Your task to perform on an android device: Clear all items from cart on target. Image 0: 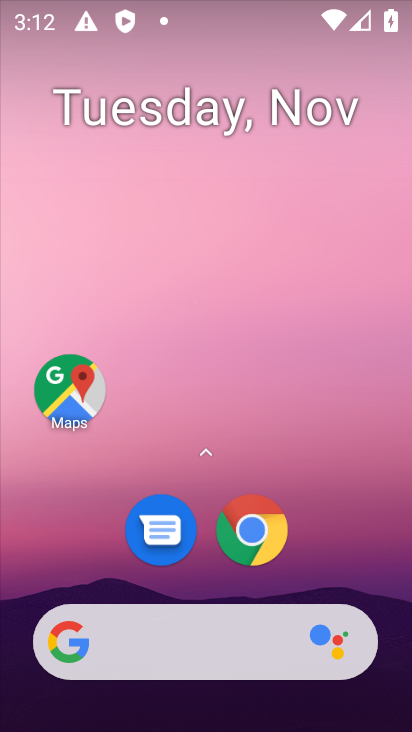
Step 0: drag from (285, 687) to (300, 77)
Your task to perform on an android device: Clear all items from cart on target. Image 1: 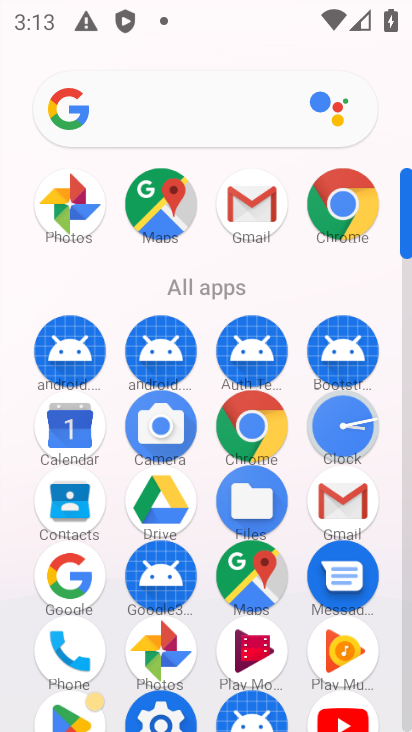
Step 1: click (256, 416)
Your task to perform on an android device: Clear all items from cart on target. Image 2: 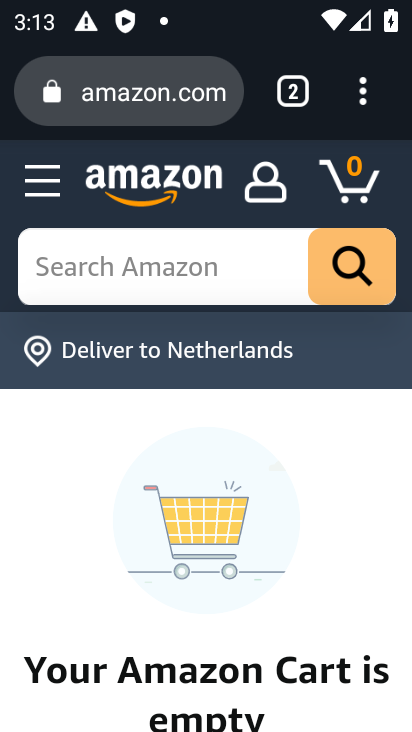
Step 2: click (163, 95)
Your task to perform on an android device: Clear all items from cart on target. Image 3: 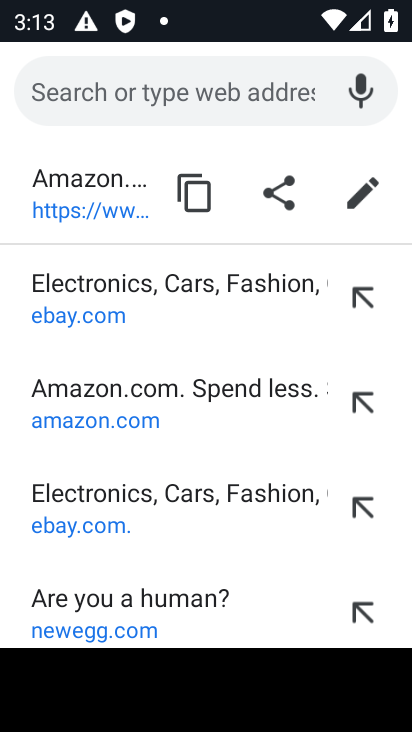
Step 3: type " target"
Your task to perform on an android device: Clear all items from cart on target. Image 4: 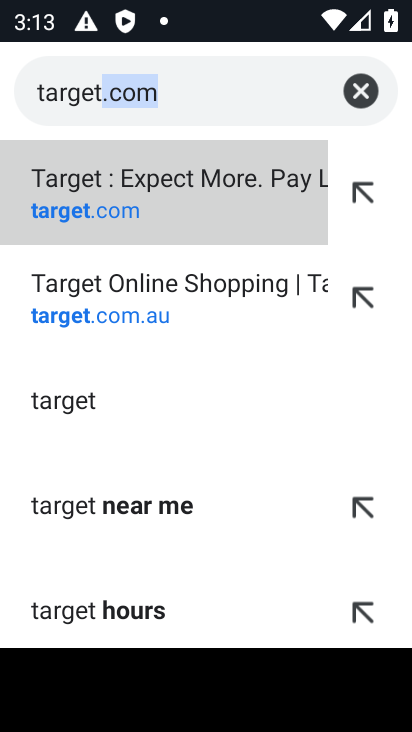
Step 4: click (110, 213)
Your task to perform on an android device: Clear all items from cart on target. Image 5: 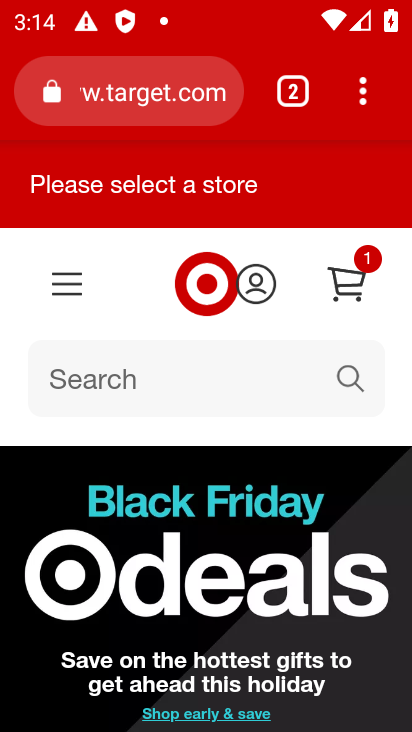
Step 5: click (349, 270)
Your task to perform on an android device: Clear all items from cart on target. Image 6: 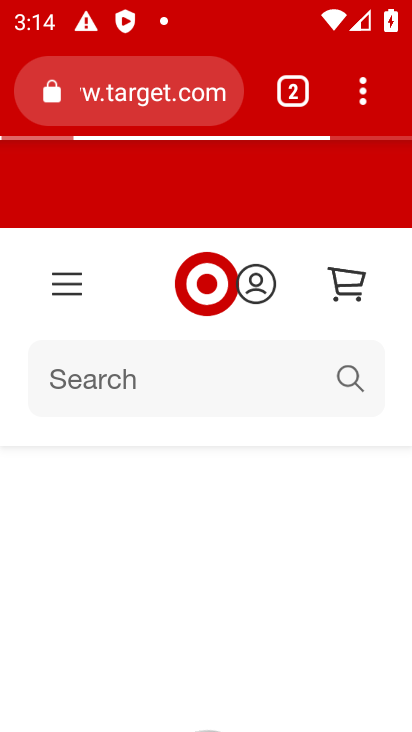
Step 6: drag from (228, 554) to (186, 161)
Your task to perform on an android device: Clear all items from cart on target. Image 7: 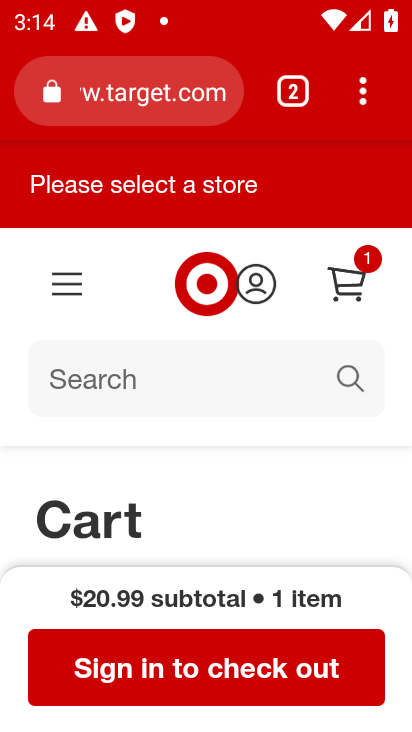
Step 7: click (356, 276)
Your task to perform on an android device: Clear all items from cart on target. Image 8: 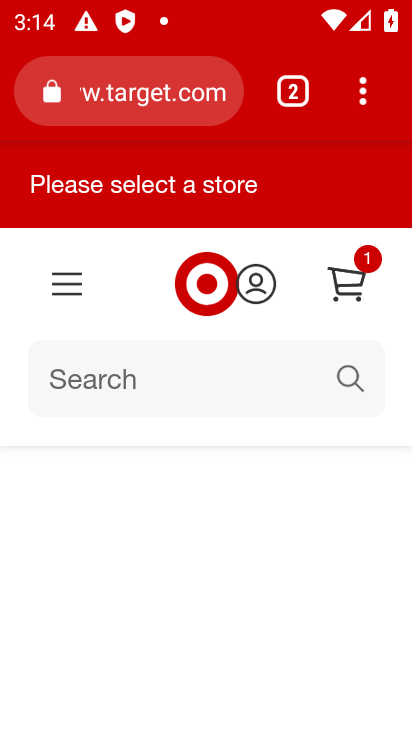
Step 8: drag from (305, 542) to (328, 218)
Your task to perform on an android device: Clear all items from cart on target. Image 9: 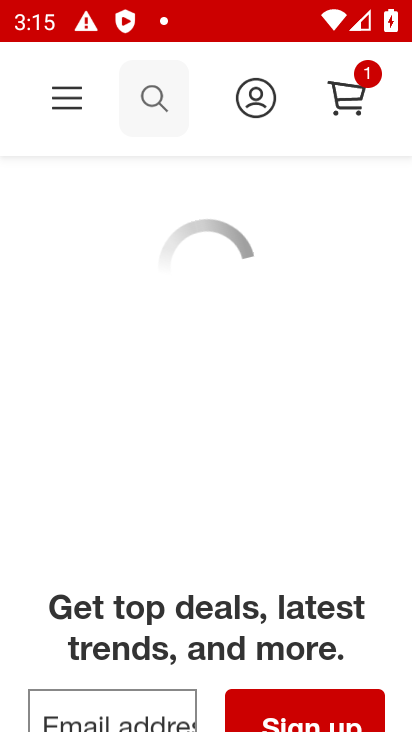
Step 9: drag from (249, 587) to (298, 199)
Your task to perform on an android device: Clear all items from cart on target. Image 10: 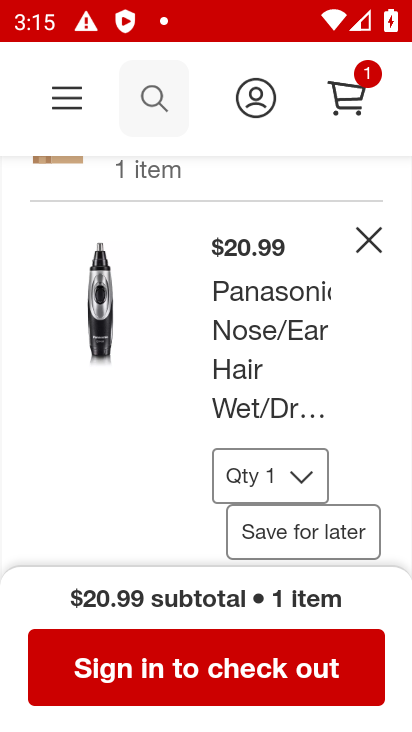
Step 10: drag from (191, 299) to (224, 199)
Your task to perform on an android device: Clear all items from cart on target. Image 11: 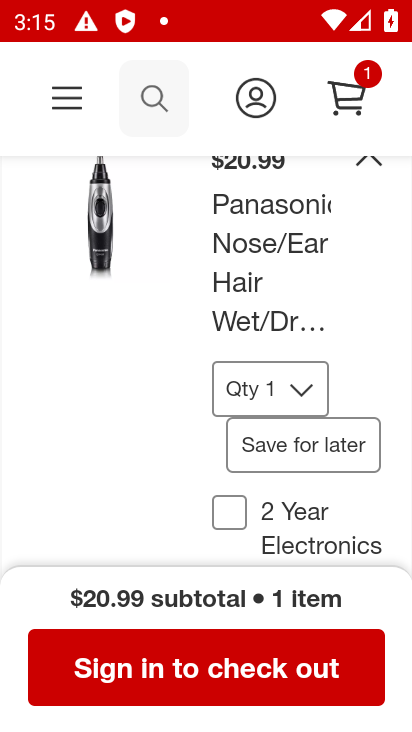
Step 11: drag from (170, 408) to (224, 139)
Your task to perform on an android device: Clear all items from cart on target. Image 12: 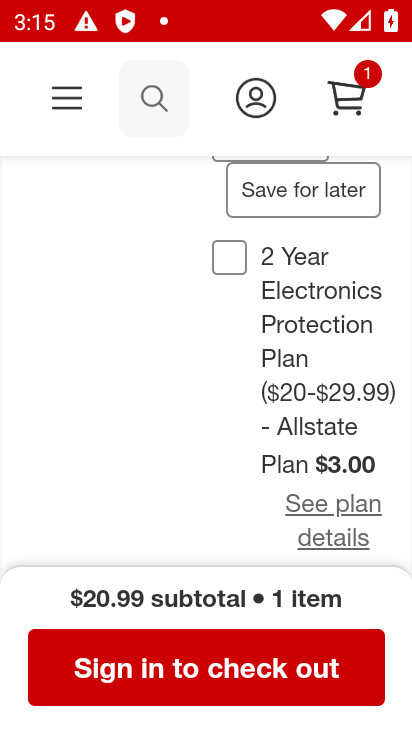
Step 12: drag from (212, 355) to (245, 242)
Your task to perform on an android device: Clear all items from cart on target. Image 13: 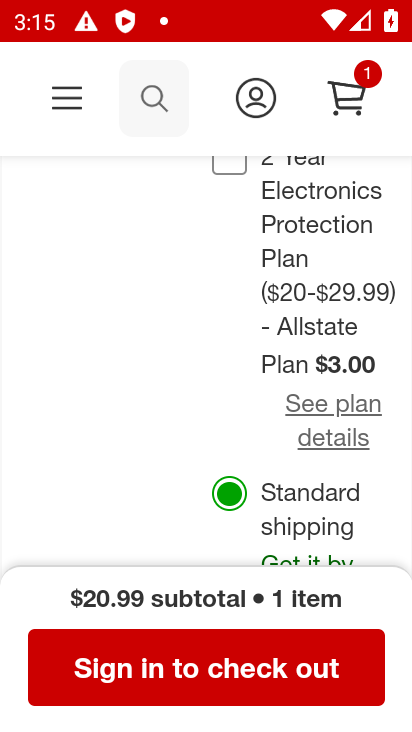
Step 13: drag from (162, 475) to (232, 217)
Your task to perform on an android device: Clear all items from cart on target. Image 14: 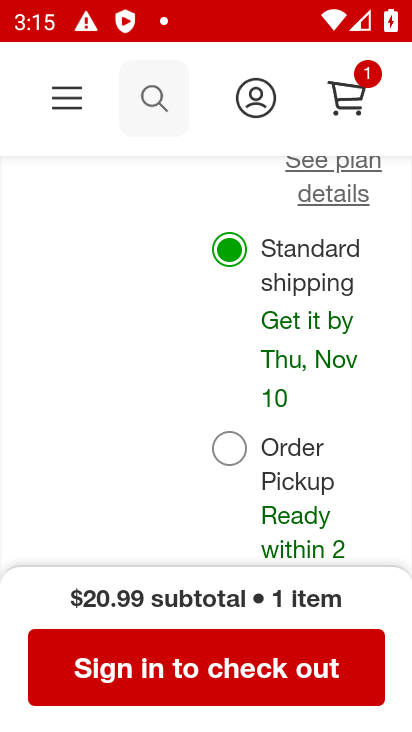
Step 14: drag from (184, 331) to (224, 168)
Your task to perform on an android device: Clear all items from cart on target. Image 15: 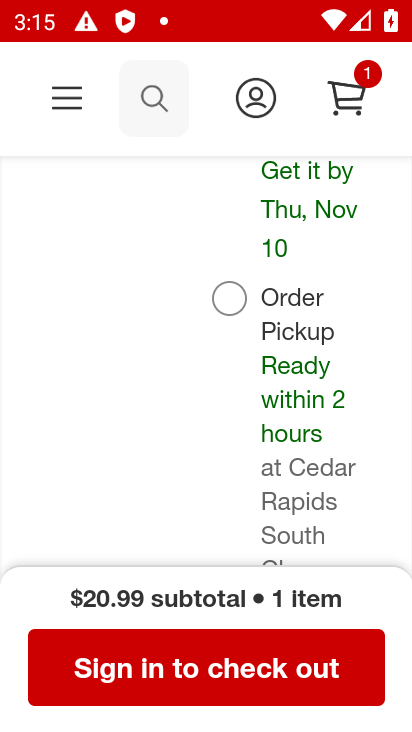
Step 15: drag from (227, 502) to (206, 129)
Your task to perform on an android device: Clear all items from cart on target. Image 16: 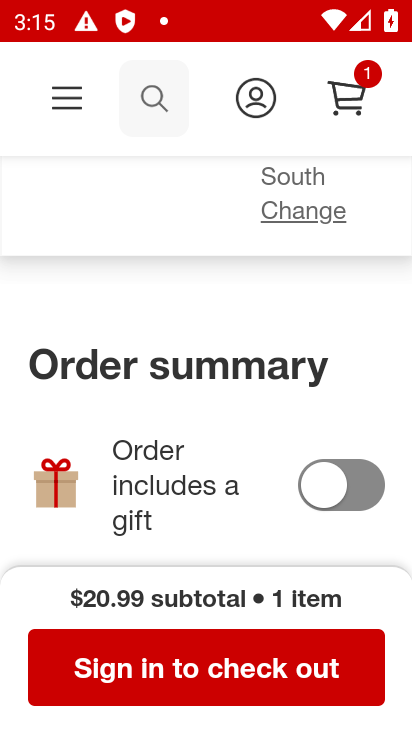
Step 16: drag from (200, 214) to (155, 560)
Your task to perform on an android device: Clear all items from cart on target. Image 17: 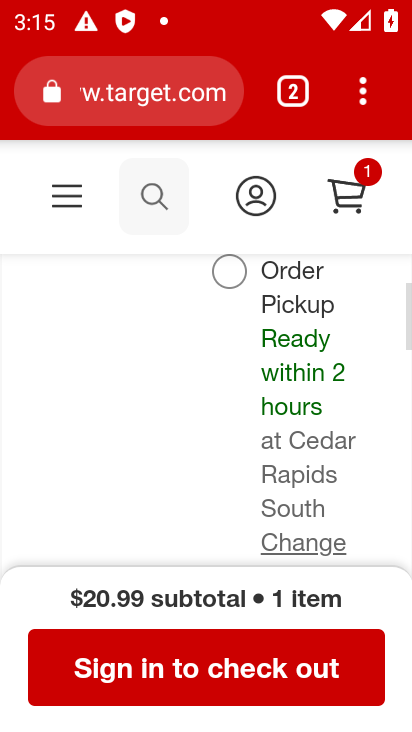
Step 17: drag from (180, 345) to (186, 566)
Your task to perform on an android device: Clear all items from cart on target. Image 18: 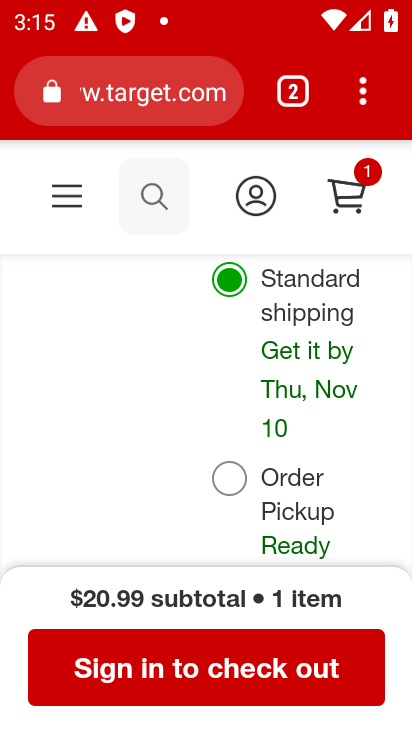
Step 18: drag from (166, 368) to (163, 556)
Your task to perform on an android device: Clear all items from cart on target. Image 19: 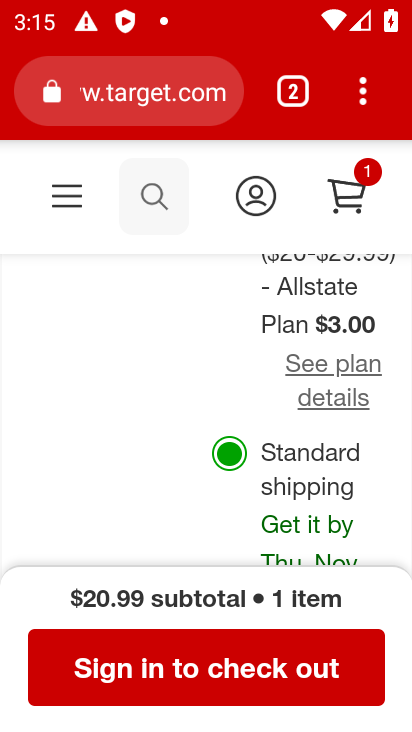
Step 19: drag from (180, 337) to (147, 665)
Your task to perform on an android device: Clear all items from cart on target. Image 20: 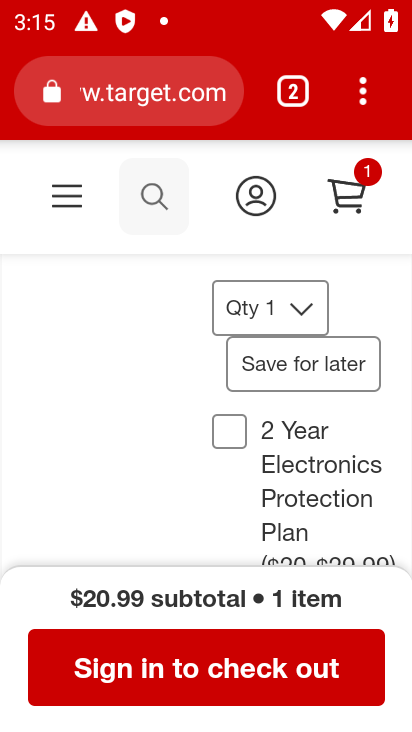
Step 20: drag from (147, 364) to (140, 474)
Your task to perform on an android device: Clear all items from cart on target. Image 21: 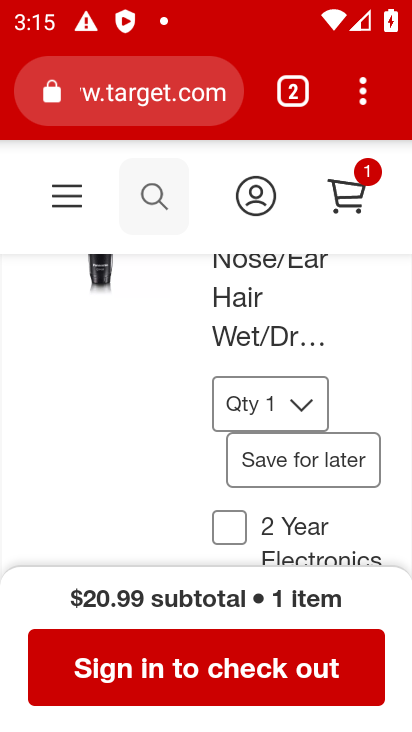
Step 21: drag from (179, 354) to (160, 539)
Your task to perform on an android device: Clear all items from cart on target. Image 22: 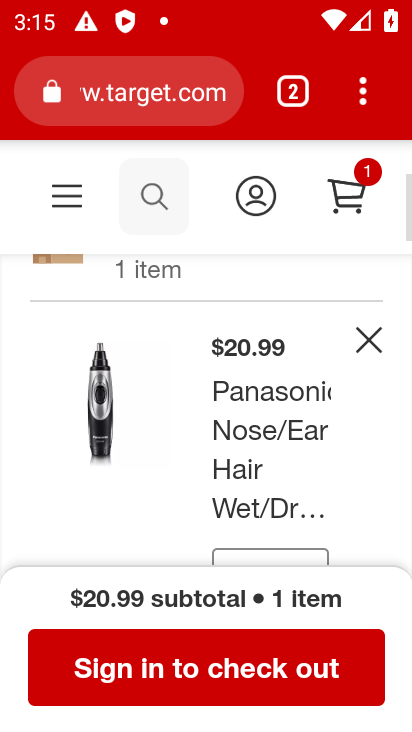
Step 22: drag from (143, 415) to (144, 621)
Your task to perform on an android device: Clear all items from cart on target. Image 23: 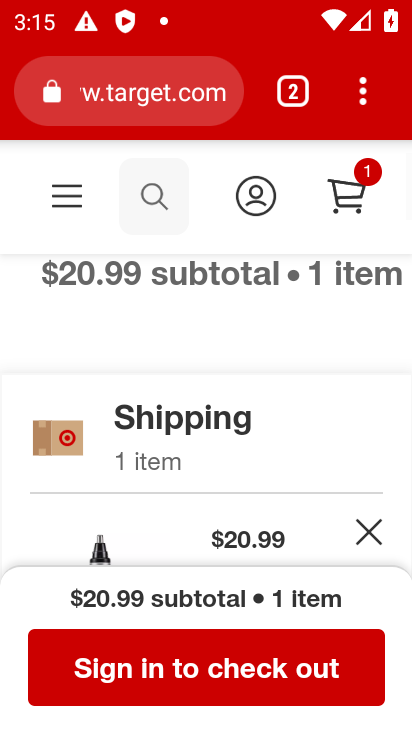
Step 23: drag from (156, 497) to (301, 436)
Your task to perform on an android device: Clear all items from cart on target. Image 24: 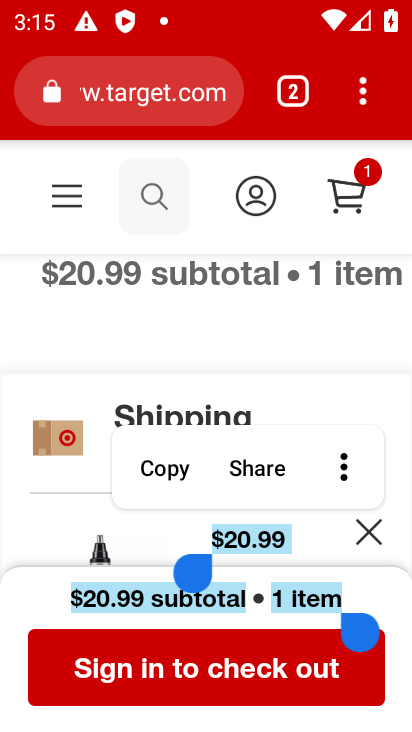
Step 24: click (360, 528)
Your task to perform on an android device: Clear all items from cart on target. Image 25: 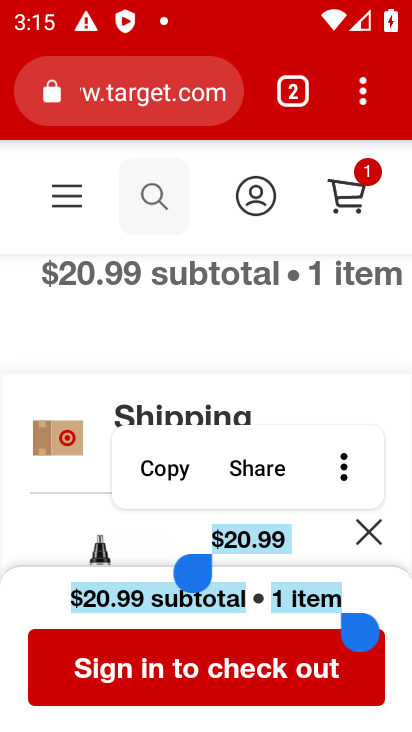
Step 25: click (360, 528)
Your task to perform on an android device: Clear all items from cart on target. Image 26: 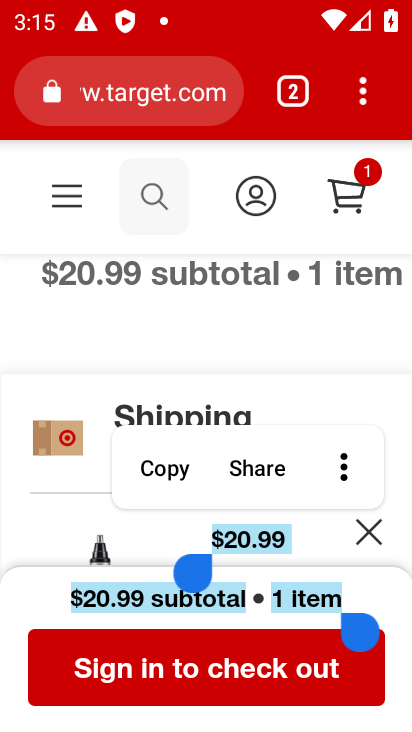
Step 26: click (367, 527)
Your task to perform on an android device: Clear all items from cart on target. Image 27: 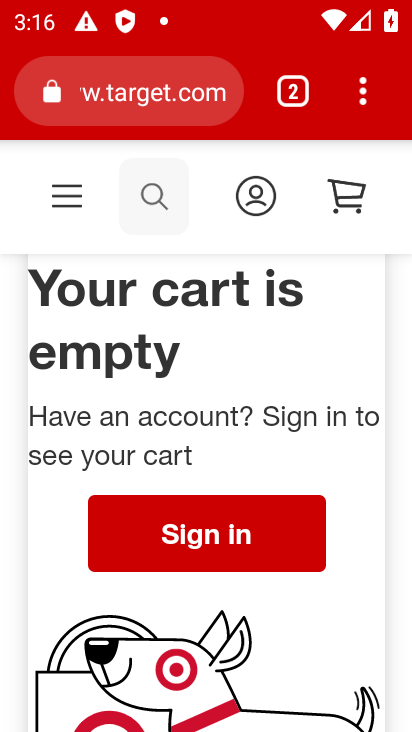
Step 27: task complete